Your task to perform on an android device: turn pop-ups off in chrome Image 0: 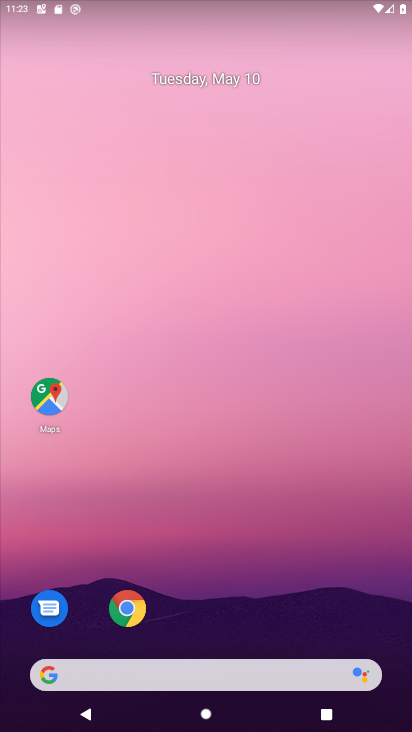
Step 0: click (128, 610)
Your task to perform on an android device: turn pop-ups off in chrome Image 1: 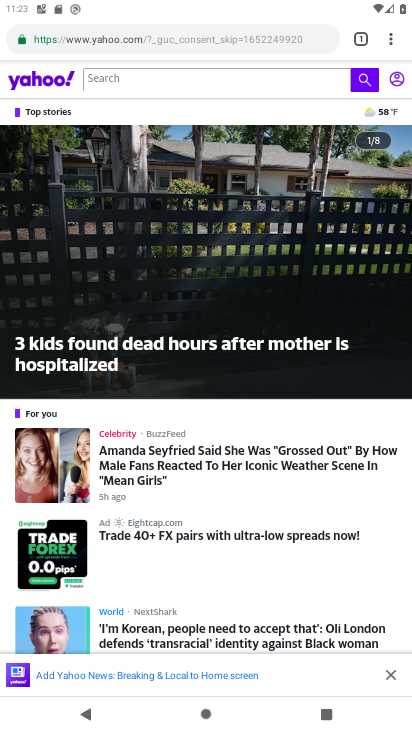
Step 1: drag from (393, 39) to (275, 512)
Your task to perform on an android device: turn pop-ups off in chrome Image 2: 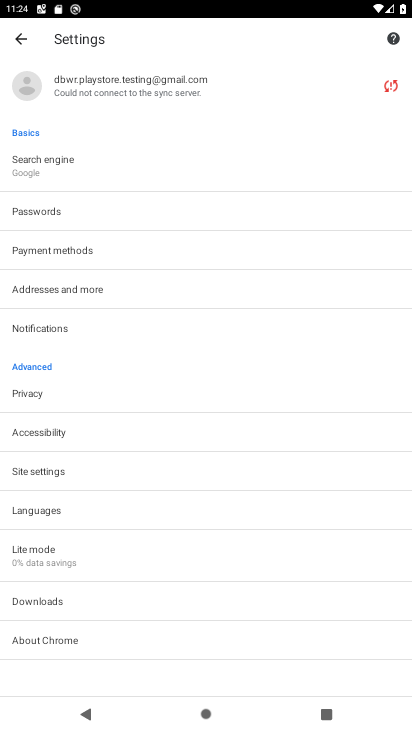
Step 2: click (65, 477)
Your task to perform on an android device: turn pop-ups off in chrome Image 3: 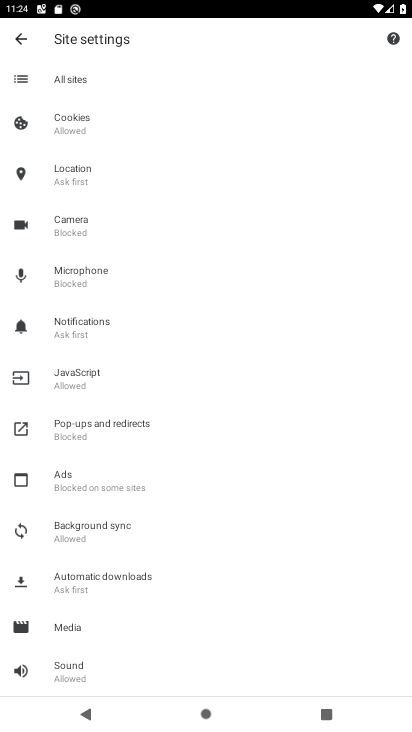
Step 3: click (113, 422)
Your task to perform on an android device: turn pop-ups off in chrome Image 4: 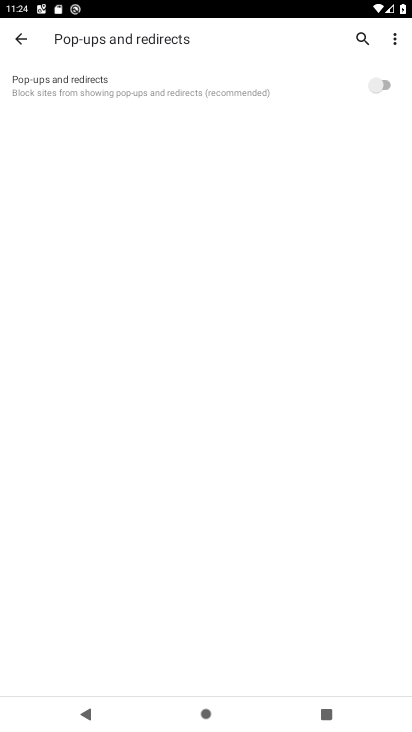
Step 4: task complete